Your task to perform on an android device: Open Maps and search for coffee Image 0: 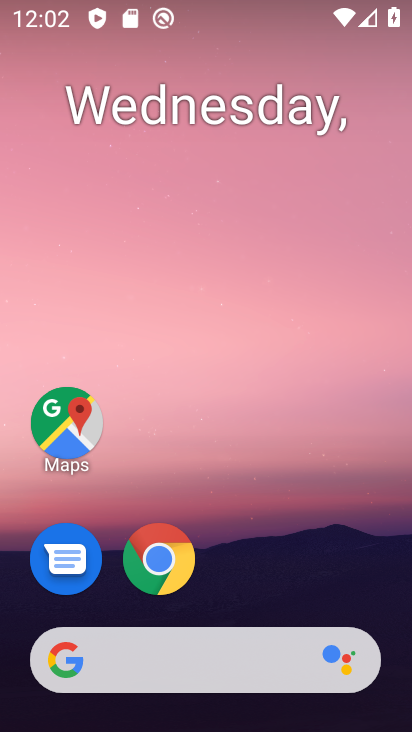
Step 0: click (76, 421)
Your task to perform on an android device: Open Maps and search for coffee Image 1: 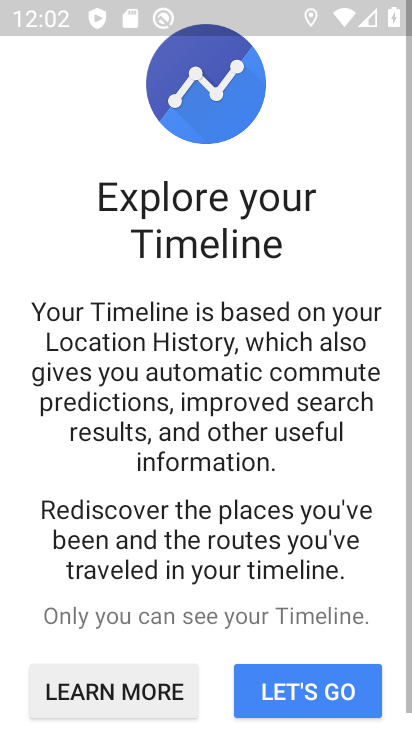
Step 1: click (333, 713)
Your task to perform on an android device: Open Maps and search for coffee Image 2: 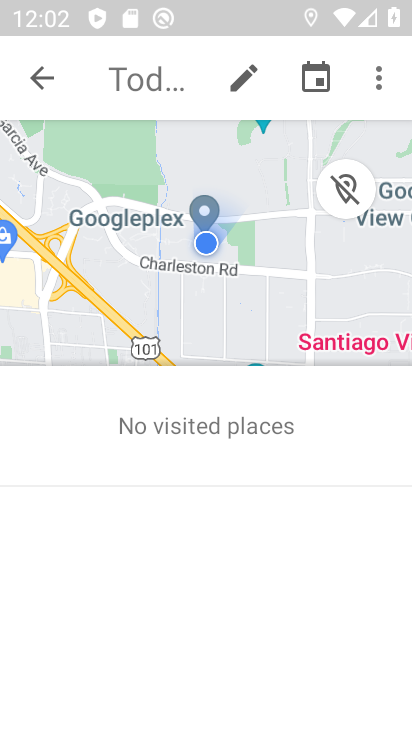
Step 2: click (24, 56)
Your task to perform on an android device: Open Maps and search for coffee Image 3: 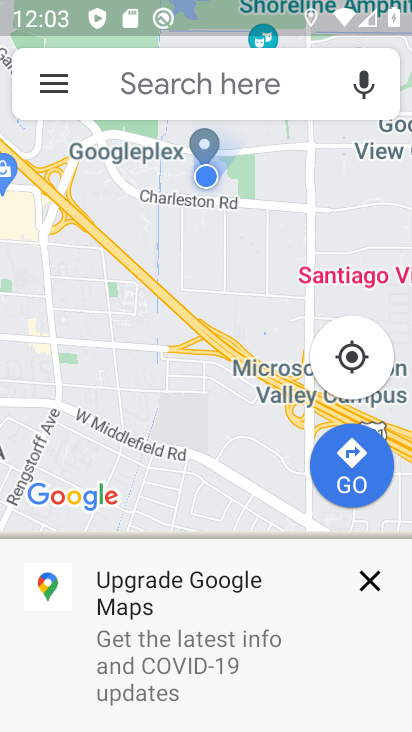
Step 3: click (179, 87)
Your task to perform on an android device: Open Maps and search for coffee Image 4: 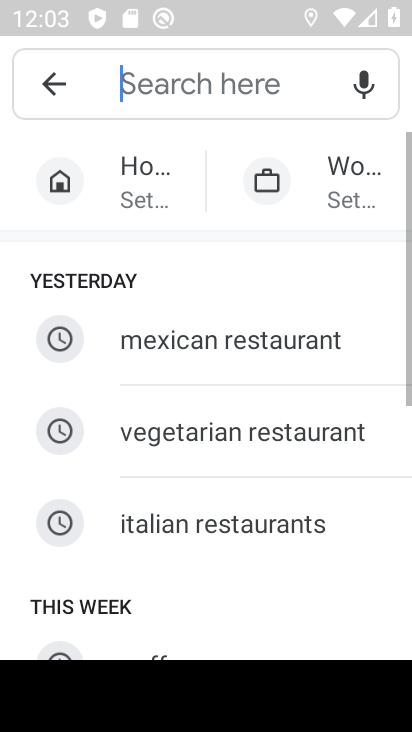
Step 4: drag from (189, 559) to (246, 146)
Your task to perform on an android device: Open Maps and search for coffee Image 5: 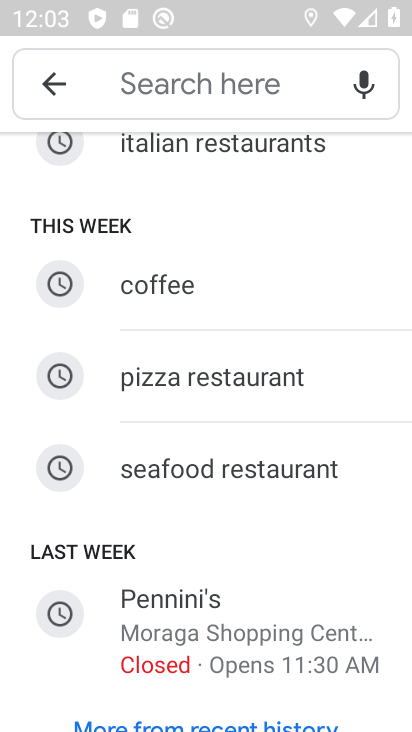
Step 5: click (146, 288)
Your task to perform on an android device: Open Maps and search for coffee Image 6: 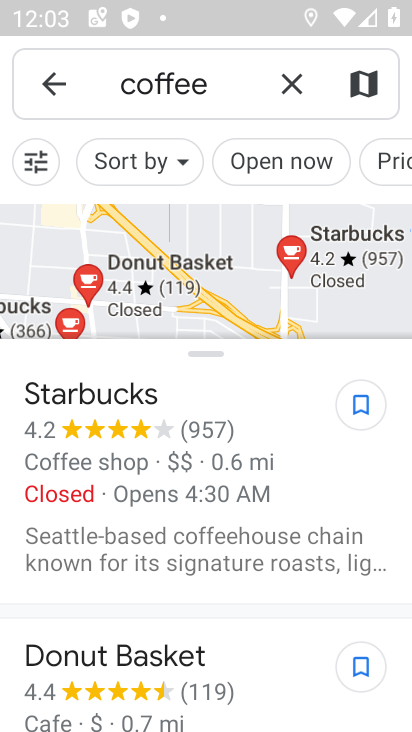
Step 6: task complete